Your task to perform on an android device: Open the web browser Image 0: 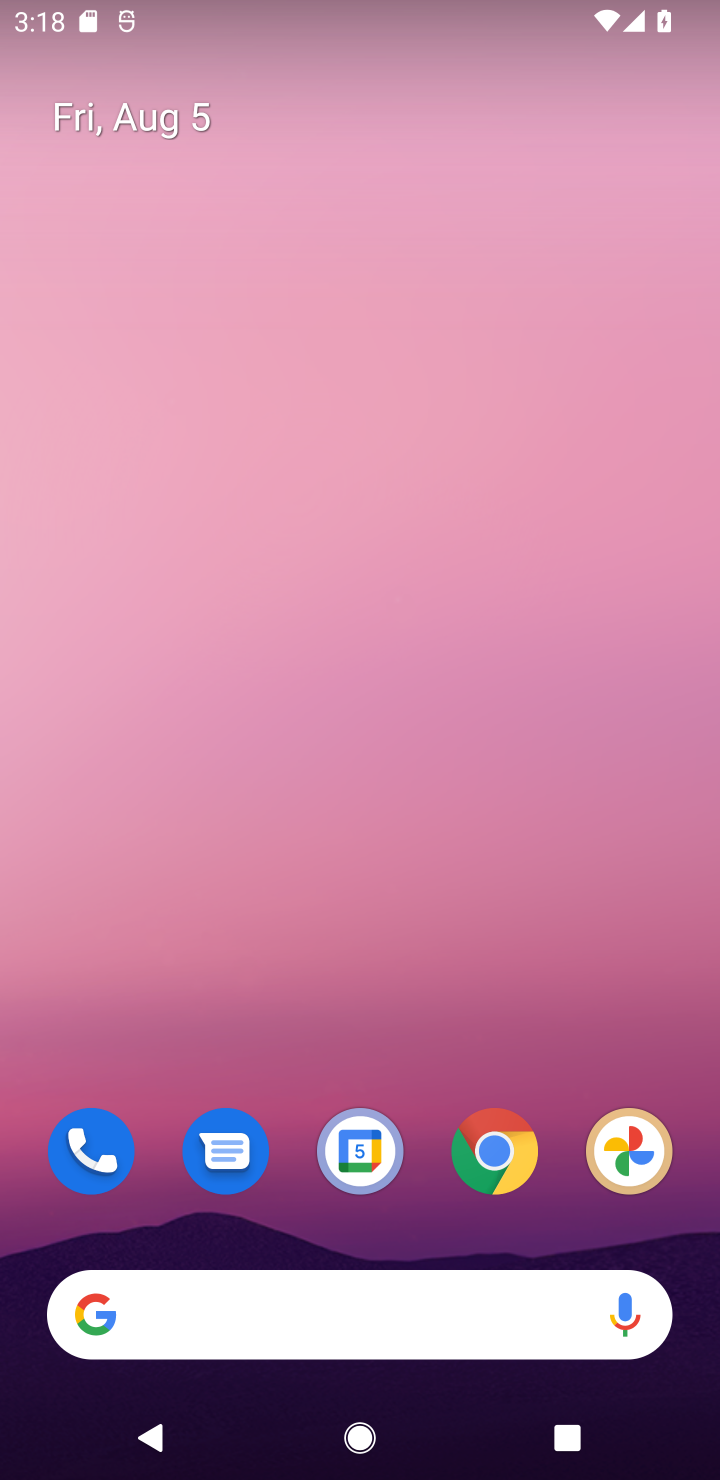
Step 0: press home button
Your task to perform on an android device: Open the web browser Image 1: 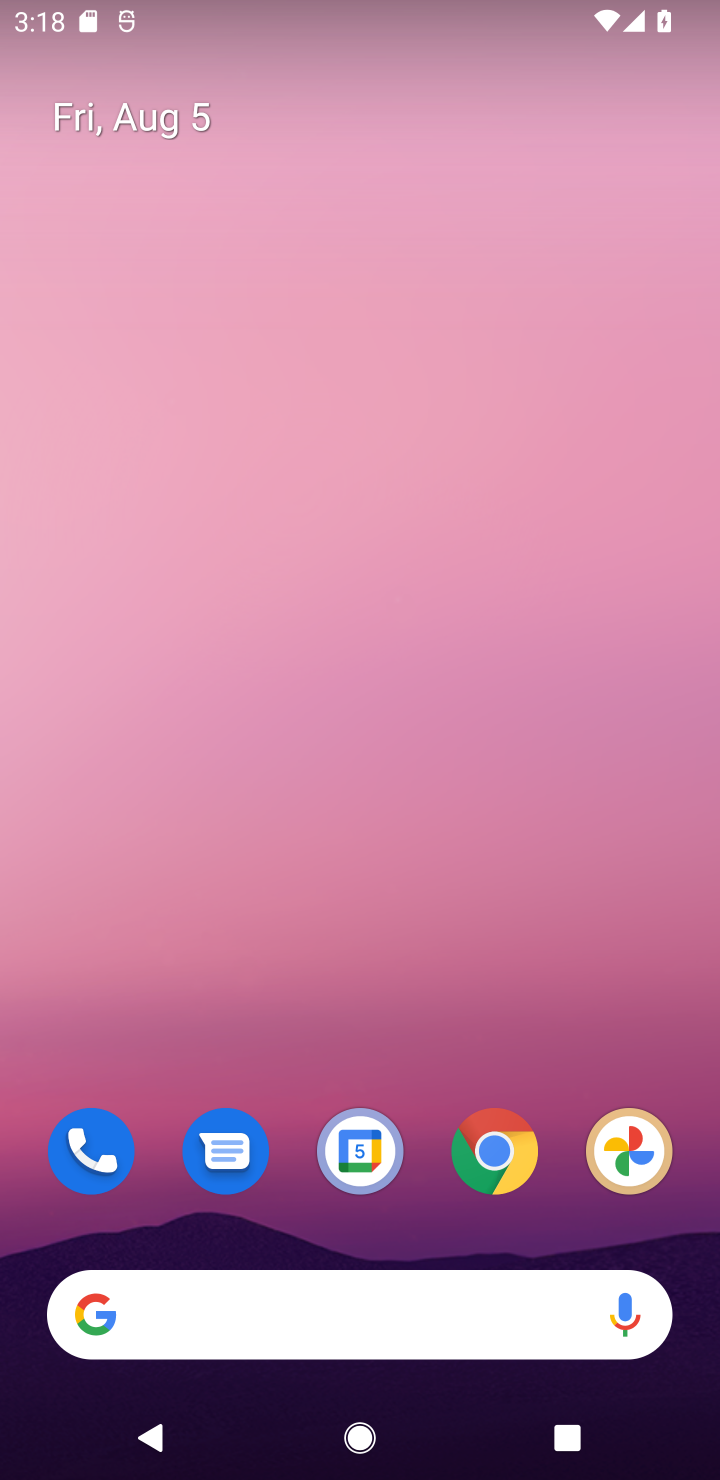
Step 1: click (508, 1164)
Your task to perform on an android device: Open the web browser Image 2: 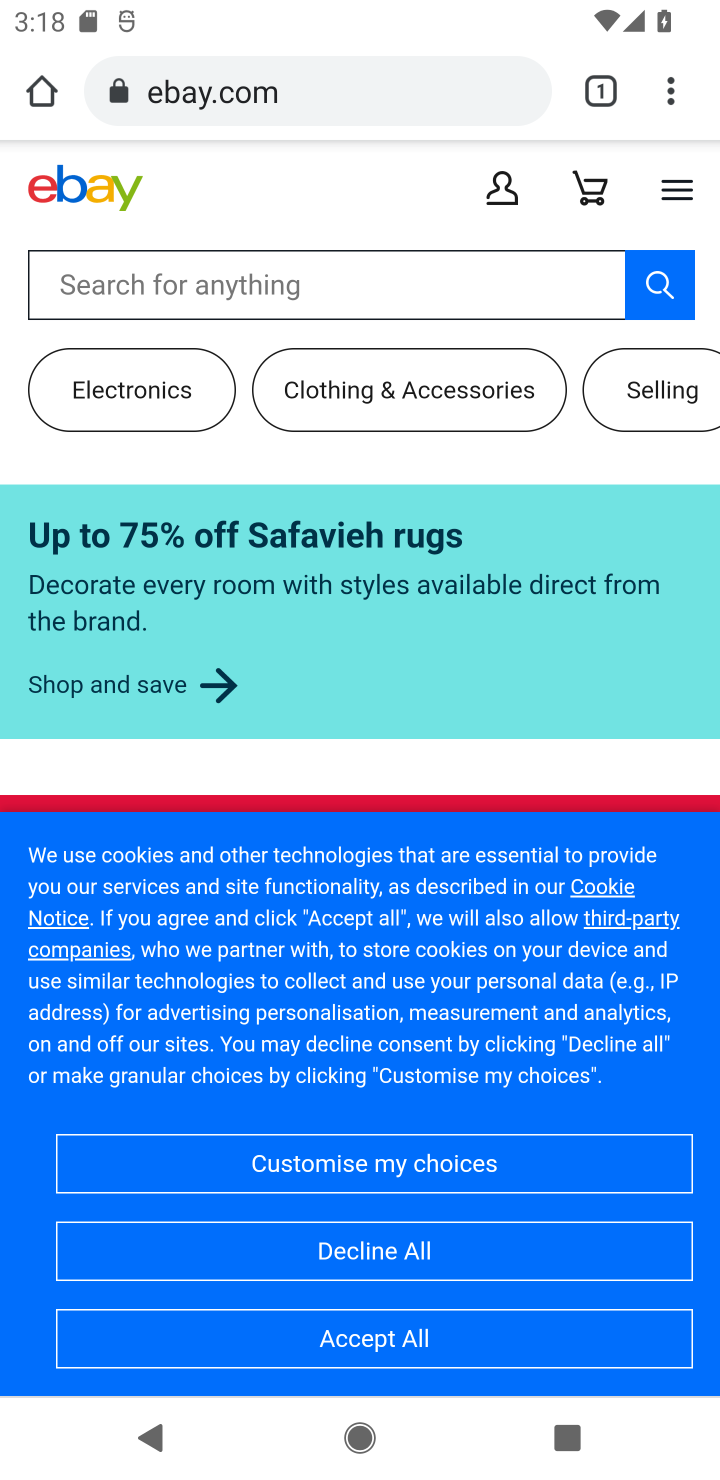
Step 2: task complete